Your task to perform on an android device: Empty the shopping cart on ebay. Search for lg ultragear on ebay, select the first entry, add it to the cart, then select checkout. Image 0: 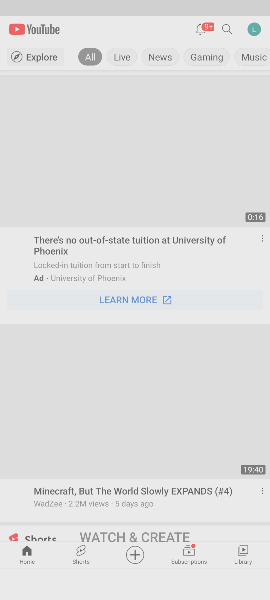
Step 0: press home button
Your task to perform on an android device: Empty the shopping cart on ebay. Search for lg ultragear on ebay, select the first entry, add it to the cart, then select checkout. Image 1: 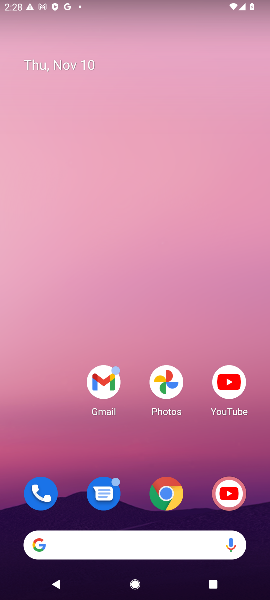
Step 1: drag from (130, 458) to (165, 60)
Your task to perform on an android device: Empty the shopping cart on ebay. Search for lg ultragear on ebay, select the first entry, add it to the cart, then select checkout. Image 2: 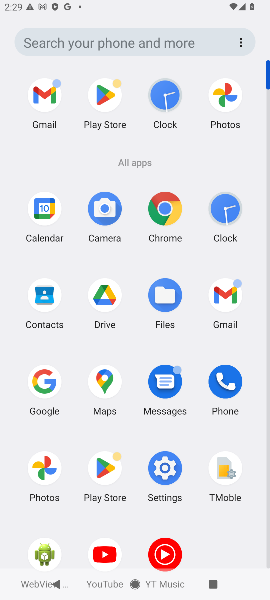
Step 2: click (43, 380)
Your task to perform on an android device: Empty the shopping cart on ebay. Search for lg ultragear on ebay, select the first entry, add it to the cart, then select checkout. Image 3: 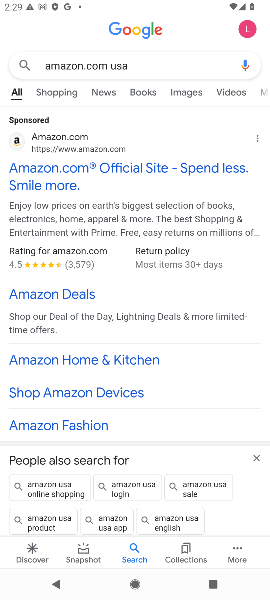
Step 3: click (152, 65)
Your task to perform on an android device: Empty the shopping cart on ebay. Search for lg ultragear on ebay, select the first entry, add it to the cart, then select checkout. Image 4: 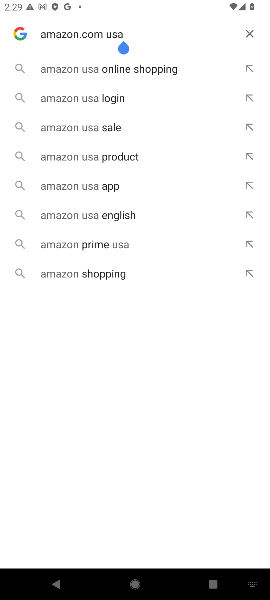
Step 4: click (254, 27)
Your task to perform on an android device: Empty the shopping cart on ebay. Search for lg ultragear on ebay, select the first entry, add it to the cart, then select checkout. Image 5: 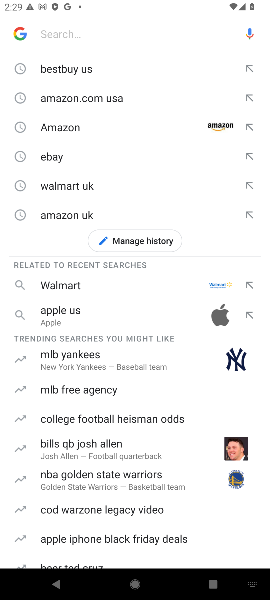
Step 5: click (77, 26)
Your task to perform on an android device: Empty the shopping cart on ebay. Search for lg ultragear on ebay, select the first entry, add it to the cart, then select checkout. Image 6: 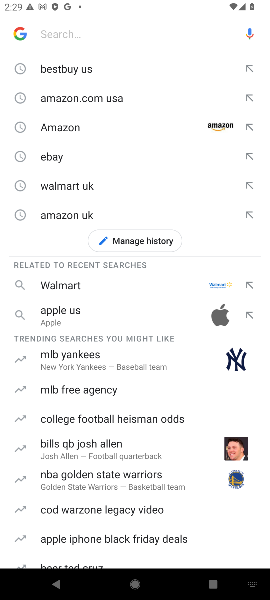
Step 6: type "ebay "
Your task to perform on an android device: Empty the shopping cart on ebay. Search for lg ultragear on ebay, select the first entry, add it to the cart, then select checkout. Image 7: 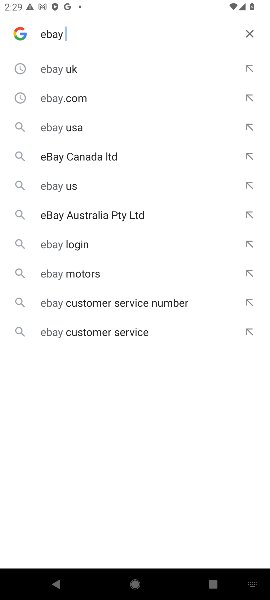
Step 7: click (78, 66)
Your task to perform on an android device: Empty the shopping cart on ebay. Search for lg ultragear on ebay, select the first entry, add it to the cart, then select checkout. Image 8: 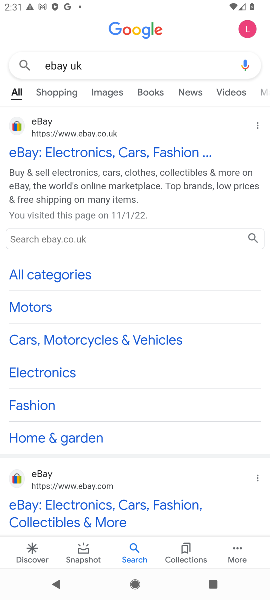
Step 8: click (13, 124)
Your task to perform on an android device: Empty the shopping cart on ebay. Search for lg ultragear on ebay, select the first entry, add it to the cart, then select checkout. Image 9: 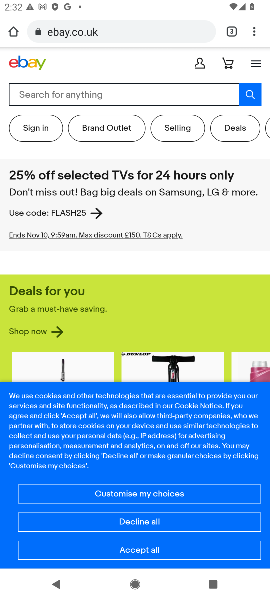
Step 9: click (136, 519)
Your task to perform on an android device: Empty the shopping cart on ebay. Search for lg ultragear on ebay, select the first entry, add it to the cart, then select checkout. Image 10: 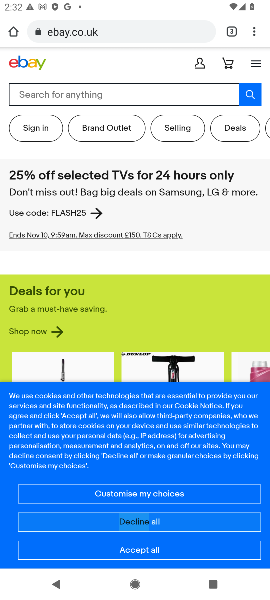
Step 10: click (136, 519)
Your task to perform on an android device: Empty the shopping cart on ebay. Search for lg ultragear on ebay, select the first entry, add it to the cart, then select checkout. Image 11: 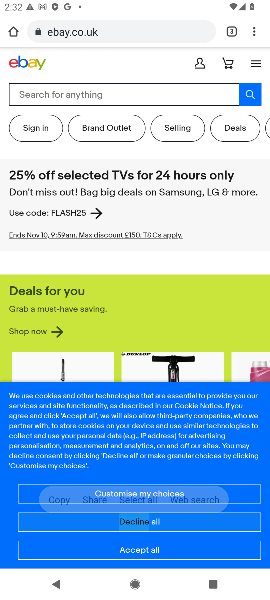
Step 11: click (136, 519)
Your task to perform on an android device: Empty the shopping cart on ebay. Search for lg ultragear on ebay, select the first entry, add it to the cart, then select checkout. Image 12: 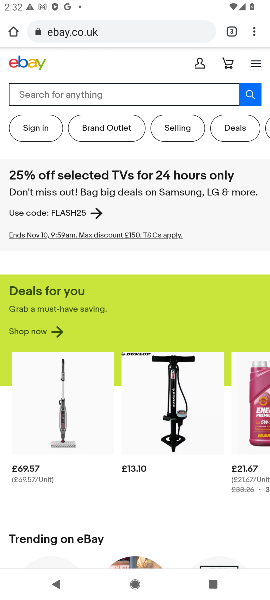
Step 12: click (135, 86)
Your task to perform on an android device: Empty the shopping cart on ebay. Search for lg ultragear on ebay, select the first entry, add it to the cart, then select checkout. Image 13: 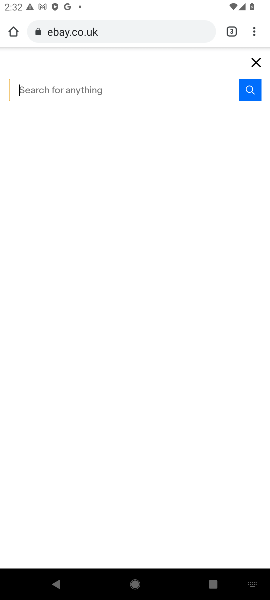
Step 13: type "lg ultragear "
Your task to perform on an android device: Empty the shopping cart on ebay. Search for lg ultragear on ebay, select the first entry, add it to the cart, then select checkout. Image 14: 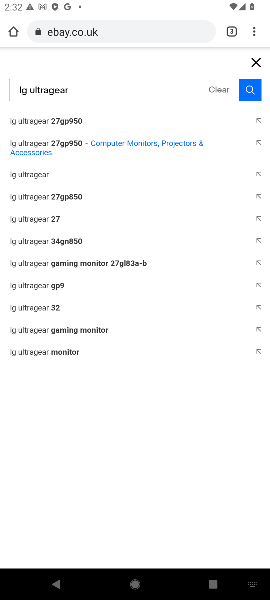
Step 14: click (52, 122)
Your task to perform on an android device: Empty the shopping cart on ebay. Search for lg ultragear on ebay, select the first entry, add it to the cart, then select checkout. Image 15: 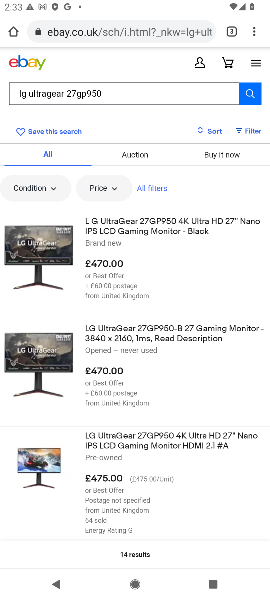
Step 15: click (145, 250)
Your task to perform on an android device: Empty the shopping cart on ebay. Search for lg ultragear on ebay, select the first entry, add it to the cart, then select checkout. Image 16: 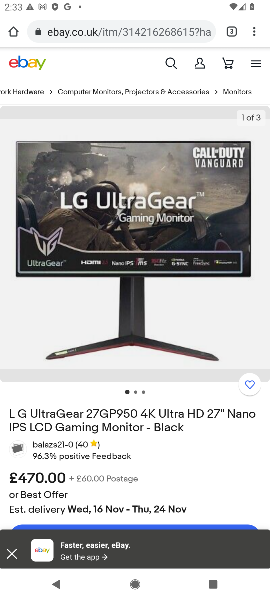
Step 16: drag from (185, 482) to (205, 198)
Your task to perform on an android device: Empty the shopping cart on ebay. Search for lg ultragear on ebay, select the first entry, add it to the cart, then select checkout. Image 17: 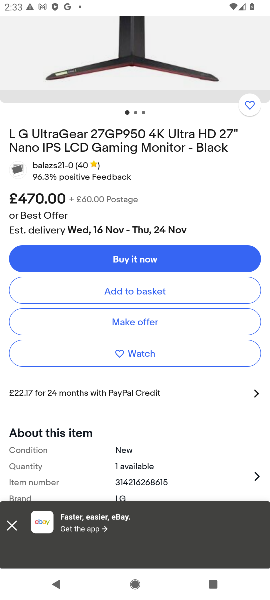
Step 17: click (10, 529)
Your task to perform on an android device: Empty the shopping cart on ebay. Search for lg ultragear on ebay, select the first entry, add it to the cart, then select checkout. Image 18: 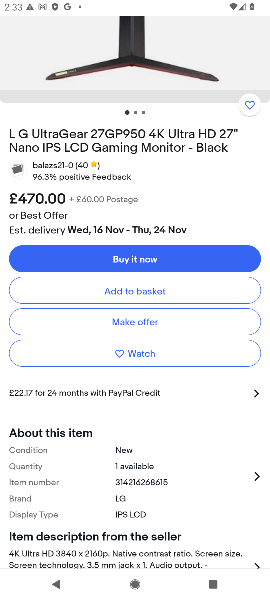
Step 18: click (155, 286)
Your task to perform on an android device: Empty the shopping cart on ebay. Search for lg ultragear on ebay, select the first entry, add it to the cart, then select checkout. Image 19: 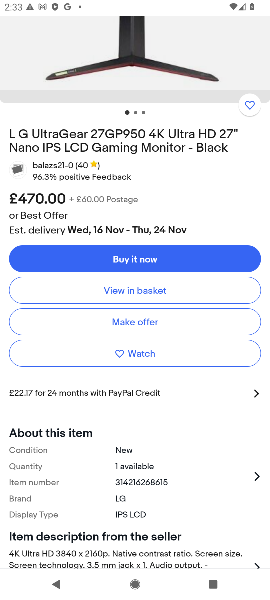
Step 19: task complete